Your task to perform on an android device: When is my next meeting? Image 0: 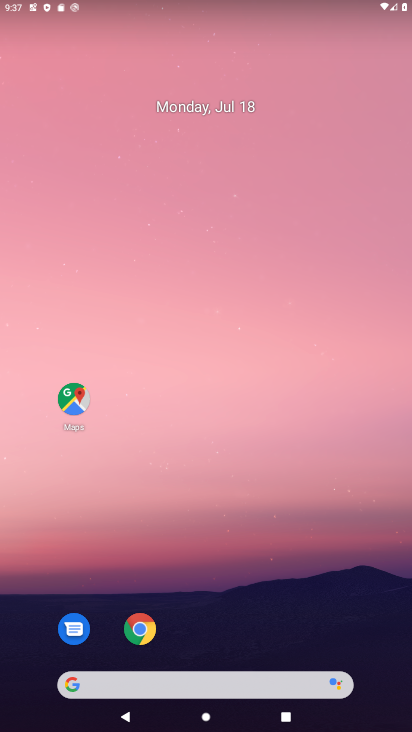
Step 0: drag from (286, 650) to (184, 64)
Your task to perform on an android device: When is my next meeting? Image 1: 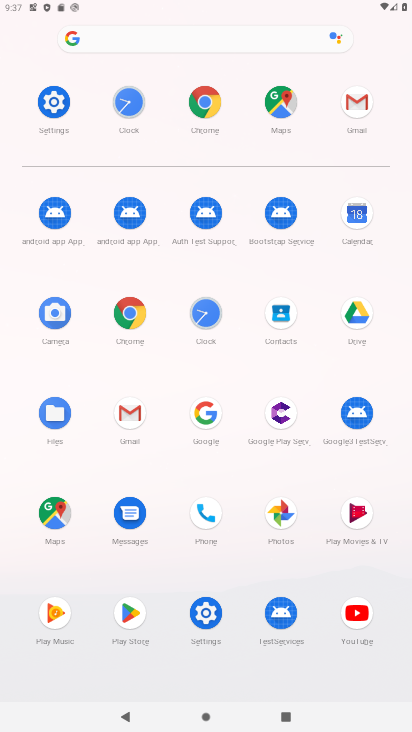
Step 1: click (348, 208)
Your task to perform on an android device: When is my next meeting? Image 2: 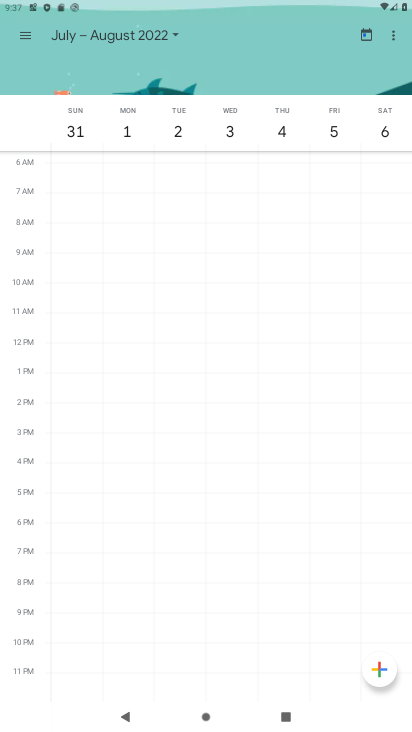
Step 2: click (115, 41)
Your task to perform on an android device: When is my next meeting? Image 3: 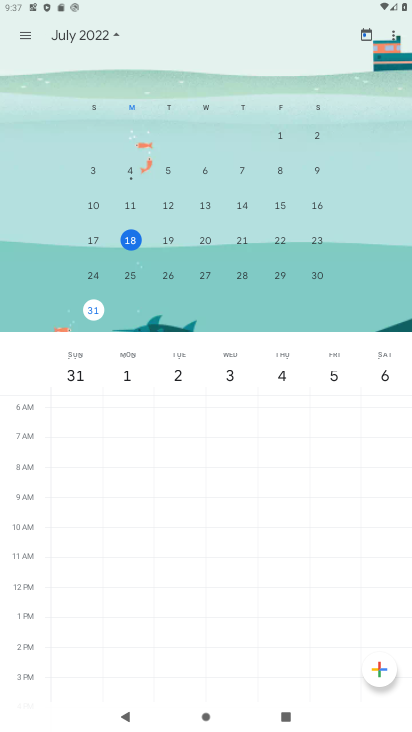
Step 3: drag from (93, 218) to (131, 207)
Your task to perform on an android device: When is my next meeting? Image 4: 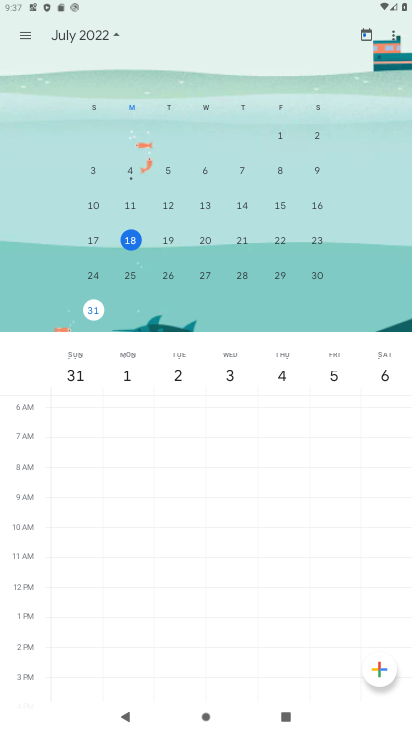
Step 4: click (134, 239)
Your task to perform on an android device: When is my next meeting? Image 5: 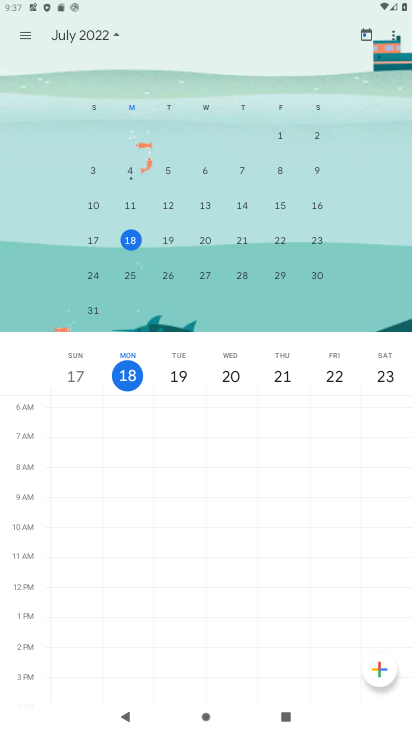
Step 5: task complete